Your task to perform on an android device: find which apps use the phone's location Image 0: 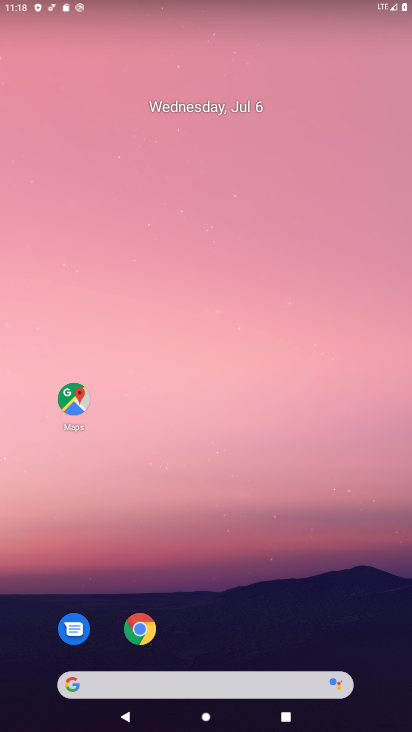
Step 0: drag from (195, 619) to (199, 173)
Your task to perform on an android device: find which apps use the phone's location Image 1: 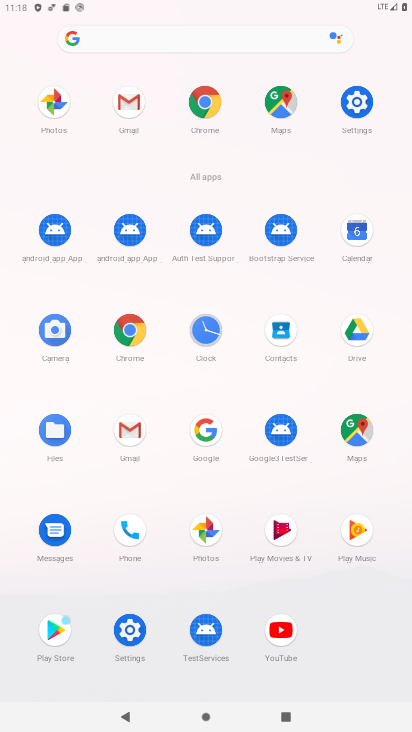
Step 1: click (345, 102)
Your task to perform on an android device: find which apps use the phone's location Image 2: 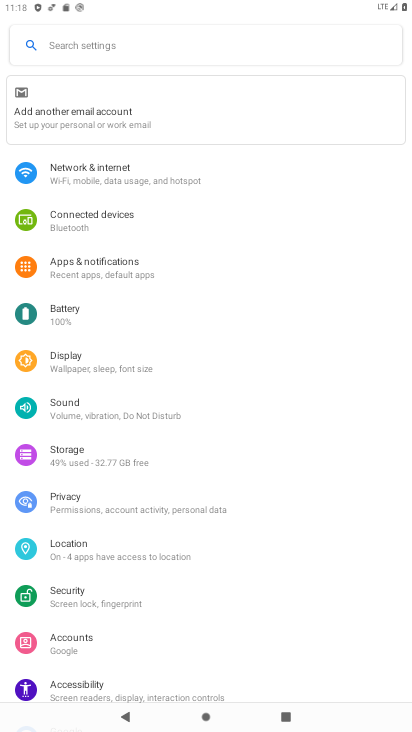
Step 2: click (123, 547)
Your task to perform on an android device: find which apps use the phone's location Image 3: 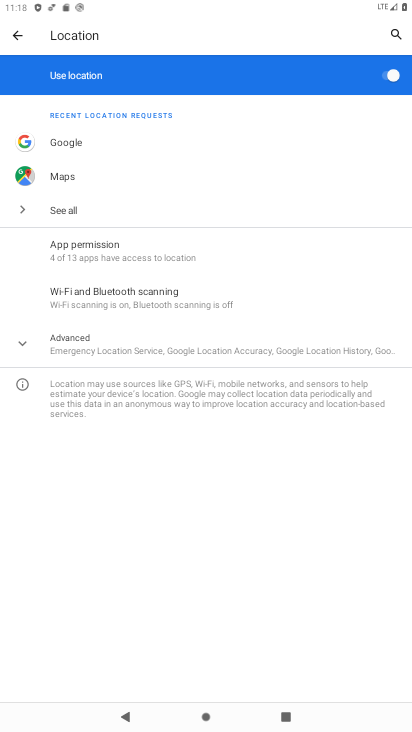
Step 3: click (149, 255)
Your task to perform on an android device: find which apps use the phone's location Image 4: 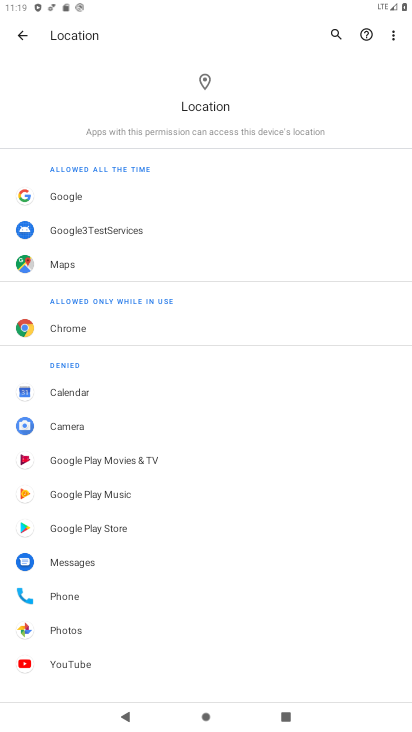
Step 4: task complete